Your task to perform on an android device: Is it going to rain today? Image 0: 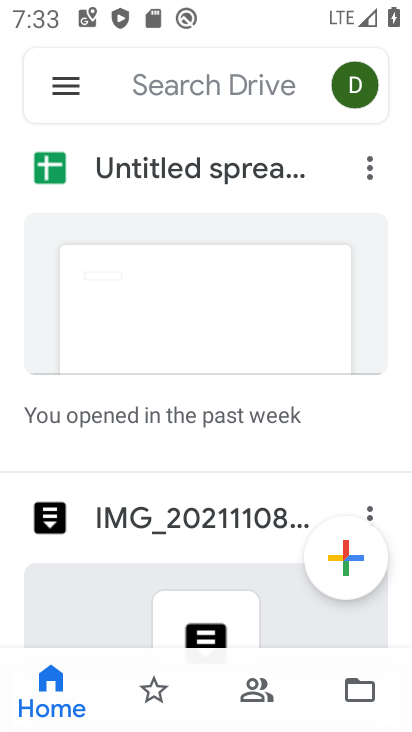
Step 0: press home button
Your task to perform on an android device: Is it going to rain today? Image 1: 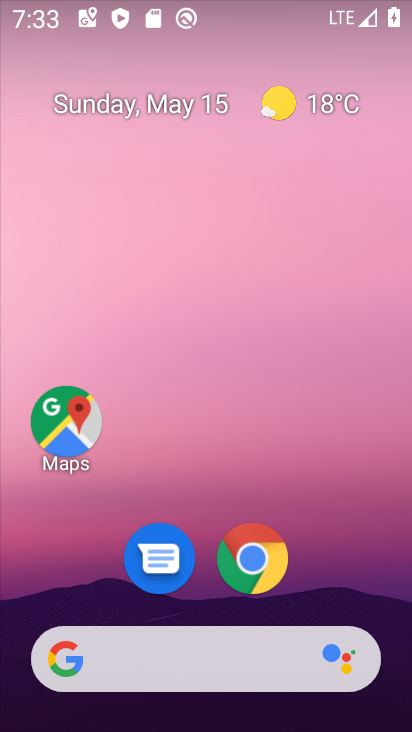
Step 1: click (222, 648)
Your task to perform on an android device: Is it going to rain today? Image 2: 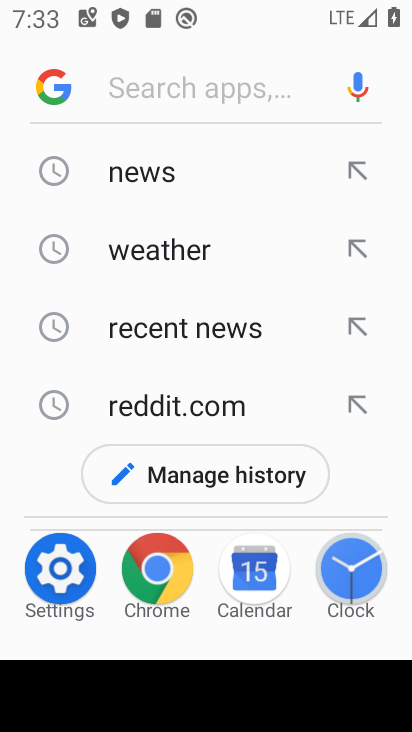
Step 2: click (167, 246)
Your task to perform on an android device: Is it going to rain today? Image 3: 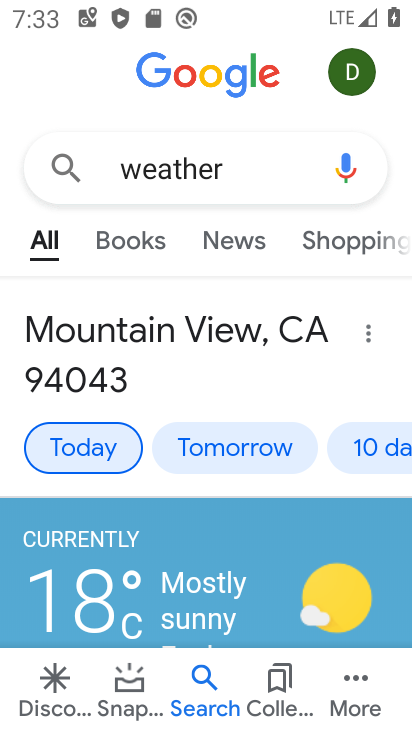
Step 3: task complete